Your task to perform on an android device: stop showing notifications on the lock screen Image 0: 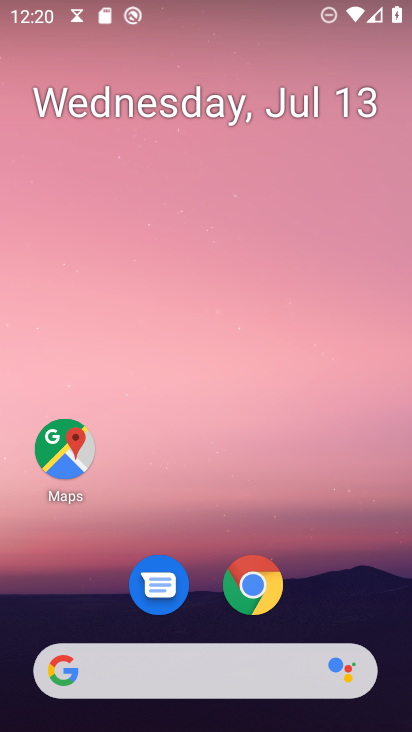
Step 0: drag from (217, 671) to (257, 11)
Your task to perform on an android device: stop showing notifications on the lock screen Image 1: 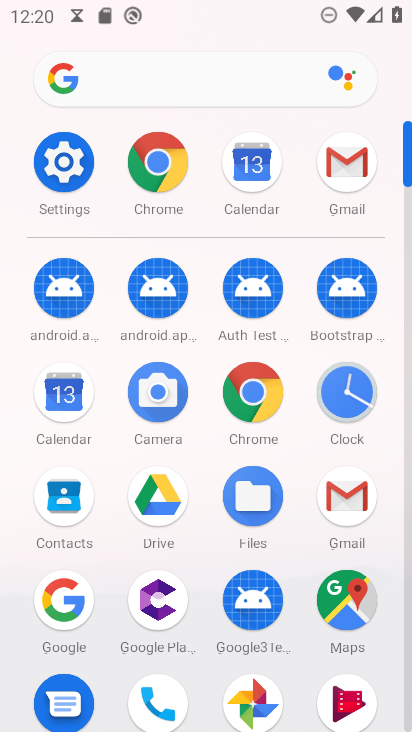
Step 1: click (69, 164)
Your task to perform on an android device: stop showing notifications on the lock screen Image 2: 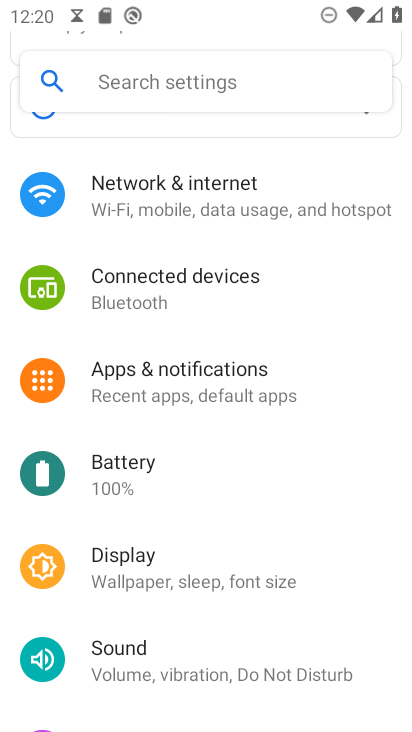
Step 2: click (160, 380)
Your task to perform on an android device: stop showing notifications on the lock screen Image 3: 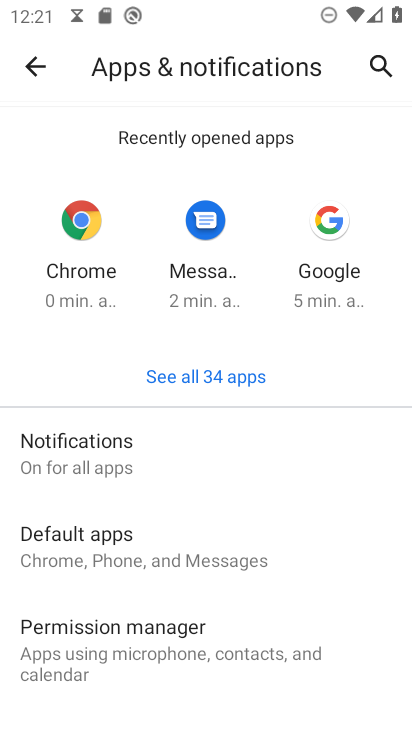
Step 3: click (109, 455)
Your task to perform on an android device: stop showing notifications on the lock screen Image 4: 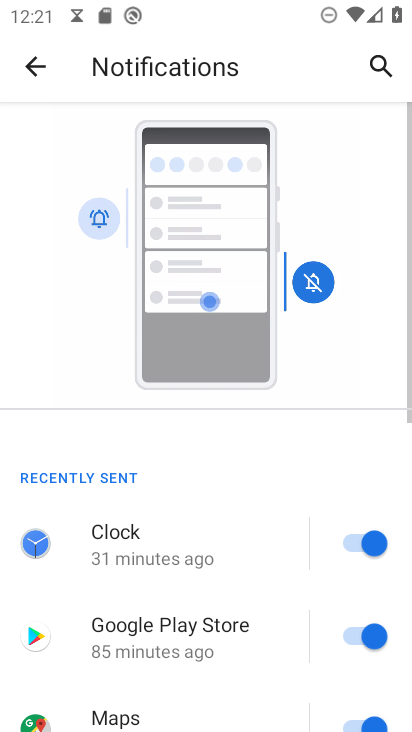
Step 4: drag from (181, 617) to (262, 157)
Your task to perform on an android device: stop showing notifications on the lock screen Image 5: 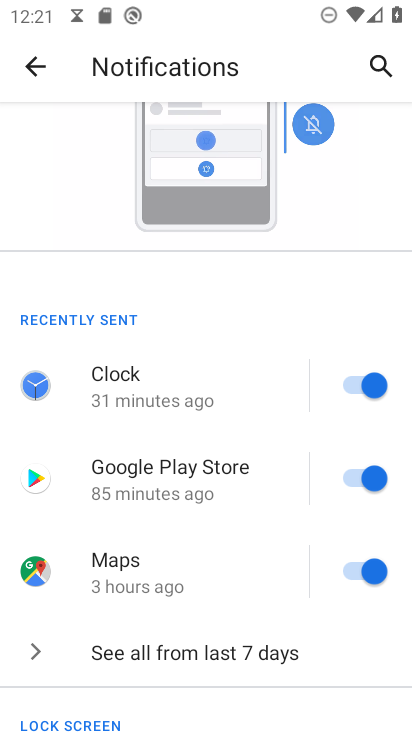
Step 5: drag from (198, 610) to (294, 115)
Your task to perform on an android device: stop showing notifications on the lock screen Image 6: 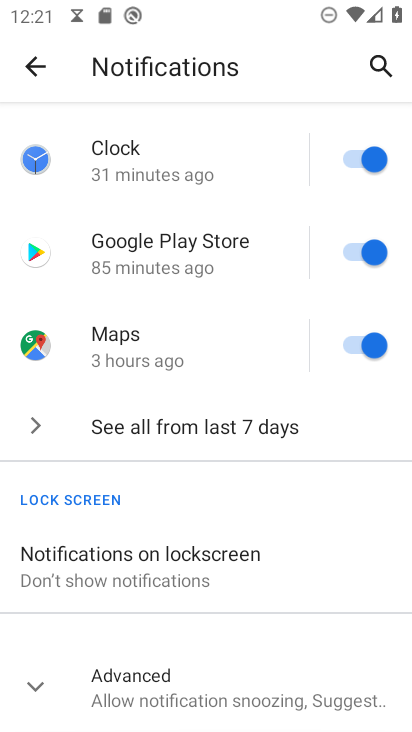
Step 6: click (183, 559)
Your task to perform on an android device: stop showing notifications on the lock screen Image 7: 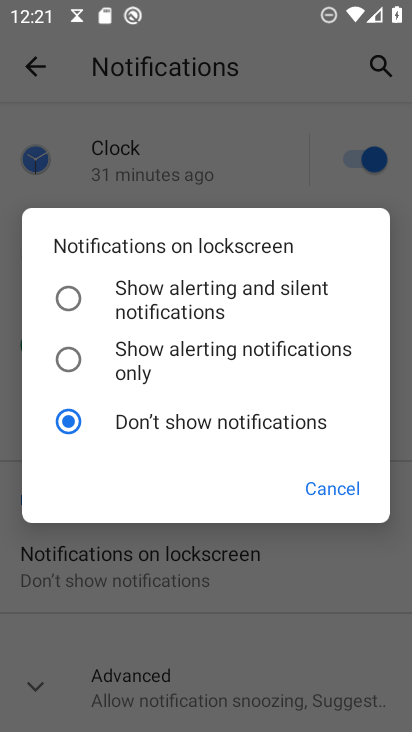
Step 7: task complete